Your task to perform on an android device: Search for seafood restaurants on Google Maps Image 0: 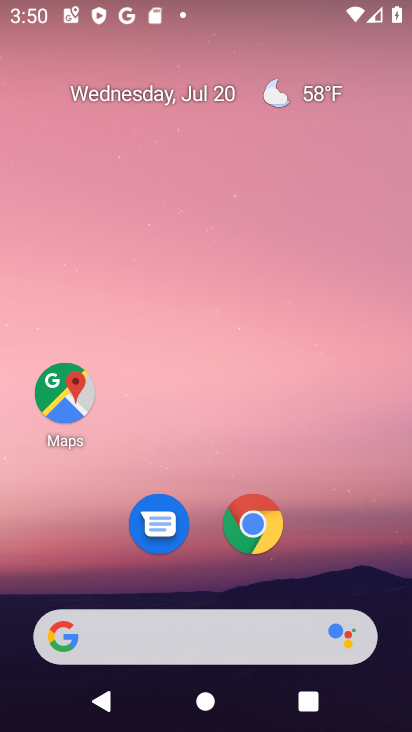
Step 0: click (53, 397)
Your task to perform on an android device: Search for seafood restaurants on Google Maps Image 1: 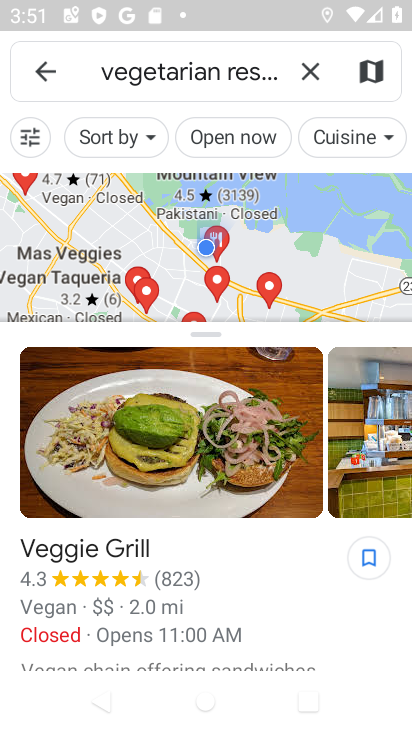
Step 1: click (309, 69)
Your task to perform on an android device: Search for seafood restaurants on Google Maps Image 2: 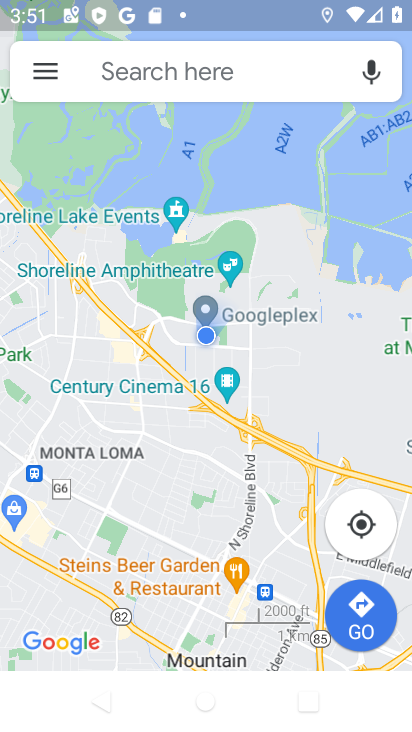
Step 2: click (243, 73)
Your task to perform on an android device: Search for seafood restaurants on Google Maps Image 3: 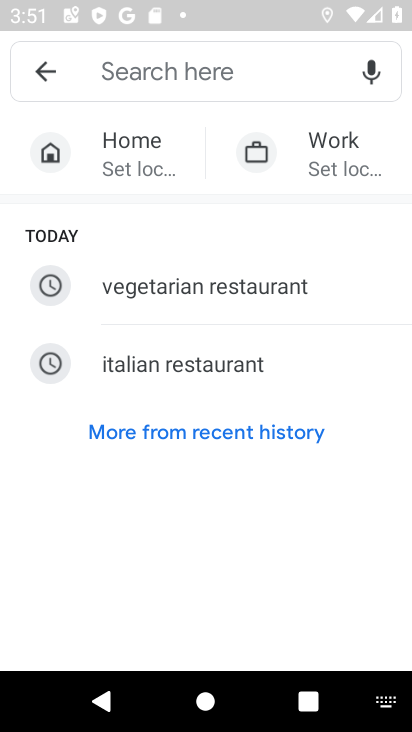
Step 3: type "seafood restaurants"
Your task to perform on an android device: Search for seafood restaurants on Google Maps Image 4: 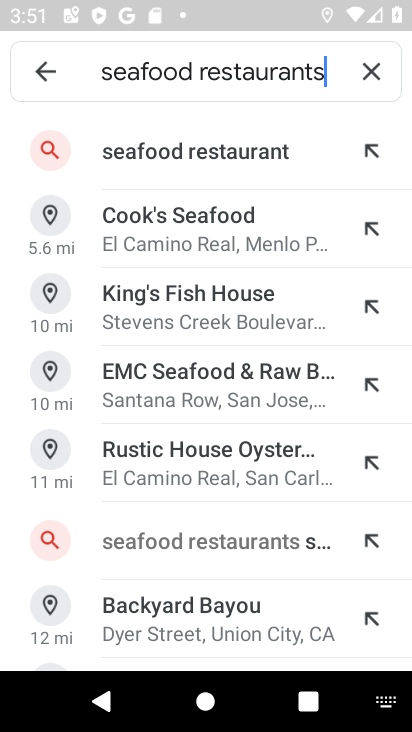
Step 4: click (255, 154)
Your task to perform on an android device: Search for seafood restaurants on Google Maps Image 5: 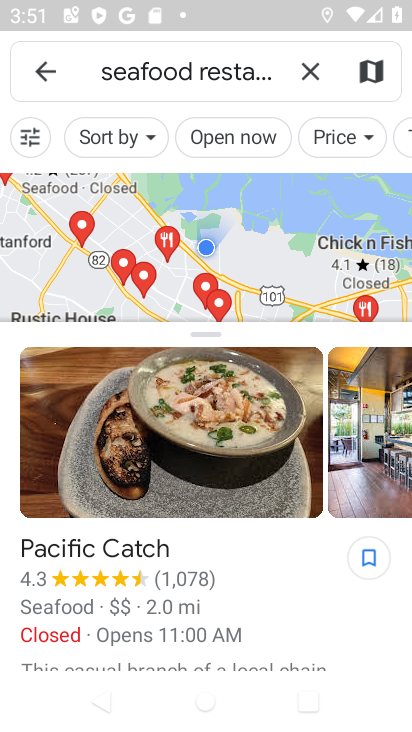
Step 5: task complete